Your task to perform on an android device: Search for seafood restaurants on Google Maps Image 0: 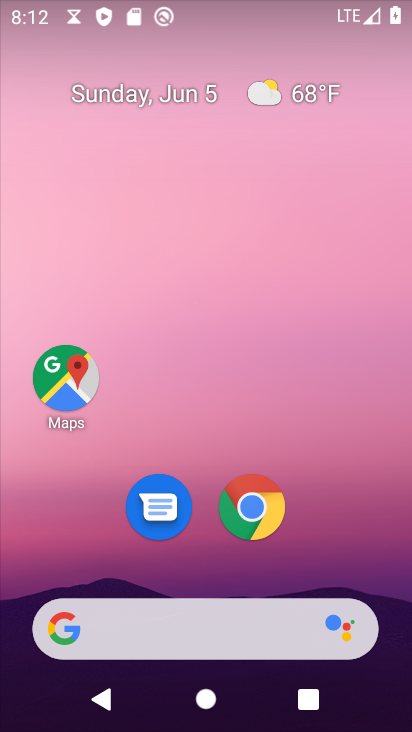
Step 0: drag from (200, 419) to (238, 38)
Your task to perform on an android device: Search for seafood restaurants on Google Maps Image 1: 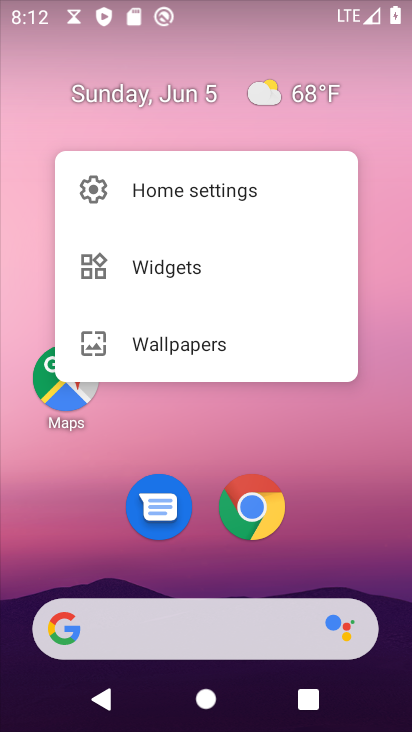
Step 1: click (60, 403)
Your task to perform on an android device: Search for seafood restaurants on Google Maps Image 2: 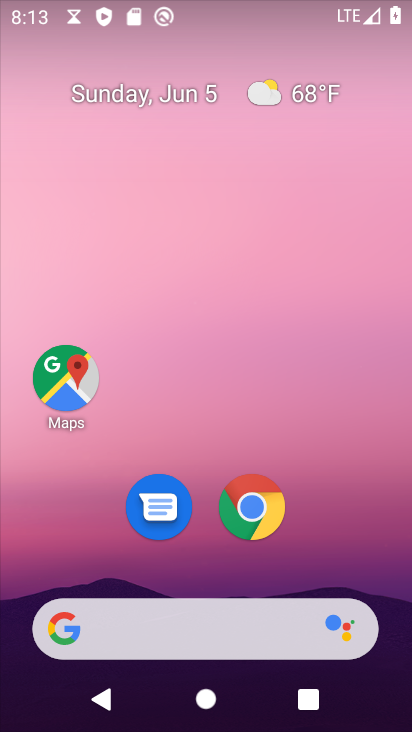
Step 2: click (61, 372)
Your task to perform on an android device: Search for seafood restaurants on Google Maps Image 3: 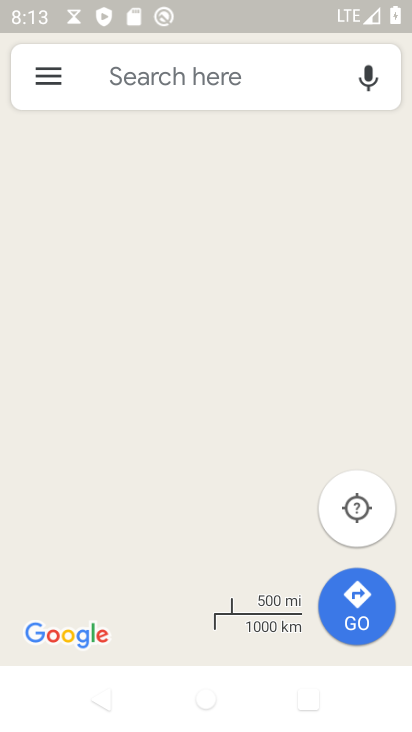
Step 3: click (187, 88)
Your task to perform on an android device: Search for seafood restaurants on Google Maps Image 4: 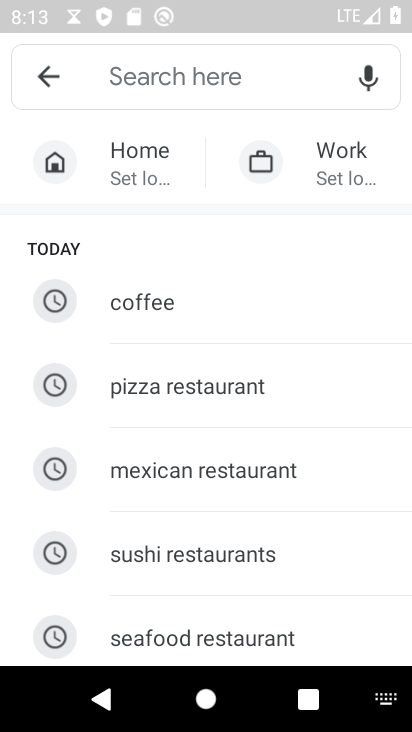
Step 4: type "seafood restaurants"
Your task to perform on an android device: Search for seafood restaurants on Google Maps Image 5: 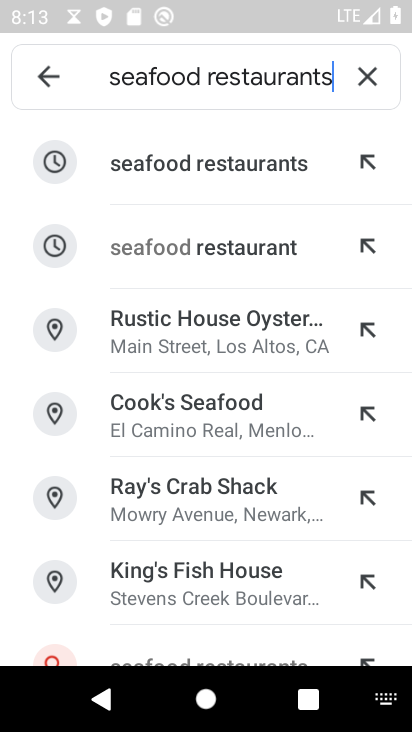
Step 5: click (153, 163)
Your task to perform on an android device: Search for seafood restaurants on Google Maps Image 6: 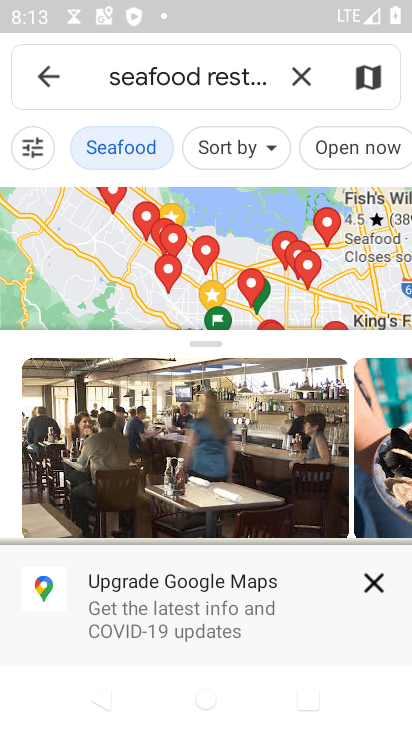
Step 6: task complete